Your task to perform on an android device: Clear all items from cart on target. Add "logitech g pro" to the cart on target Image 0: 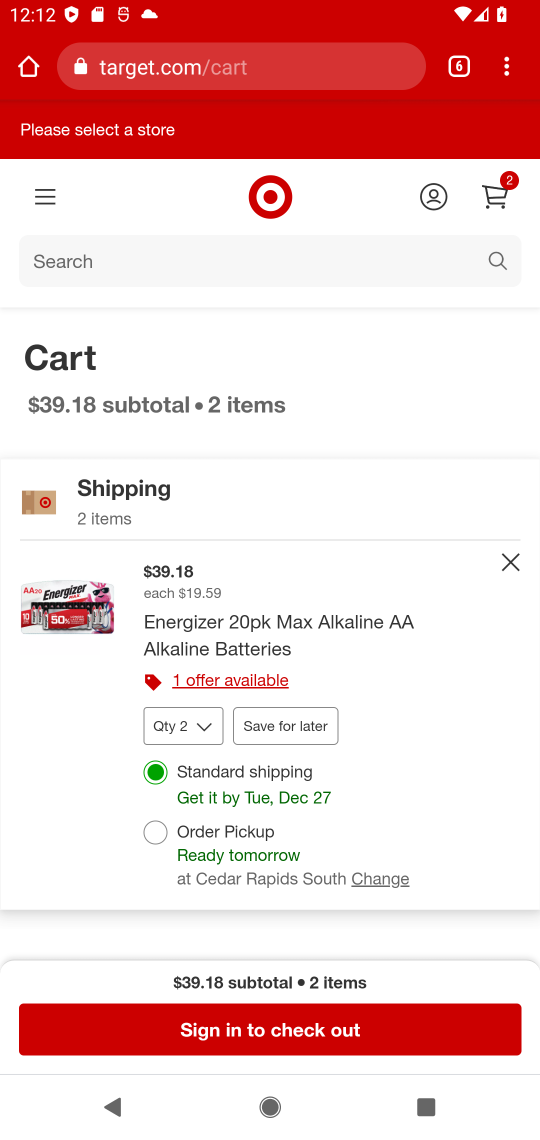
Step 0: press home button
Your task to perform on an android device: Clear all items from cart on target. Add "logitech g pro" to the cart on target Image 1: 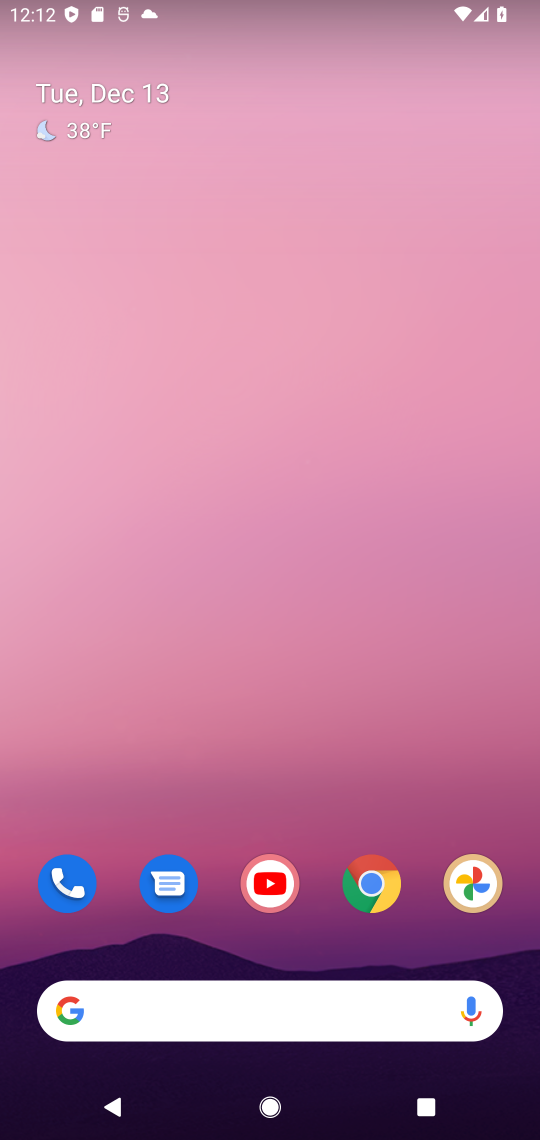
Step 1: drag from (289, 945) to (320, 276)
Your task to perform on an android device: Clear all items from cart on target. Add "logitech g pro" to the cart on target Image 2: 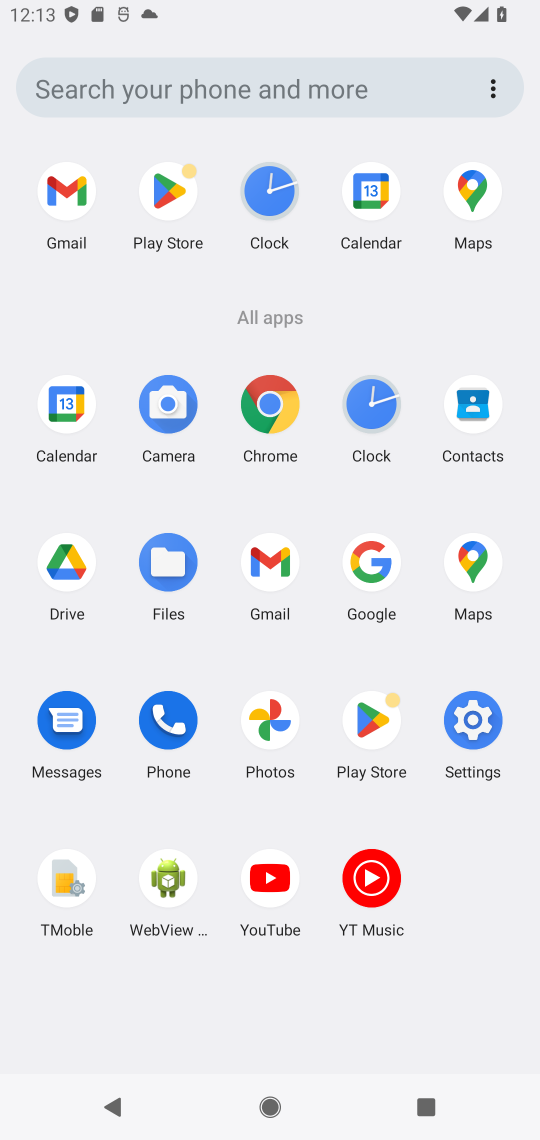
Step 2: click (369, 594)
Your task to perform on an android device: Clear all items from cart on target. Add "logitech g pro" to the cart on target Image 3: 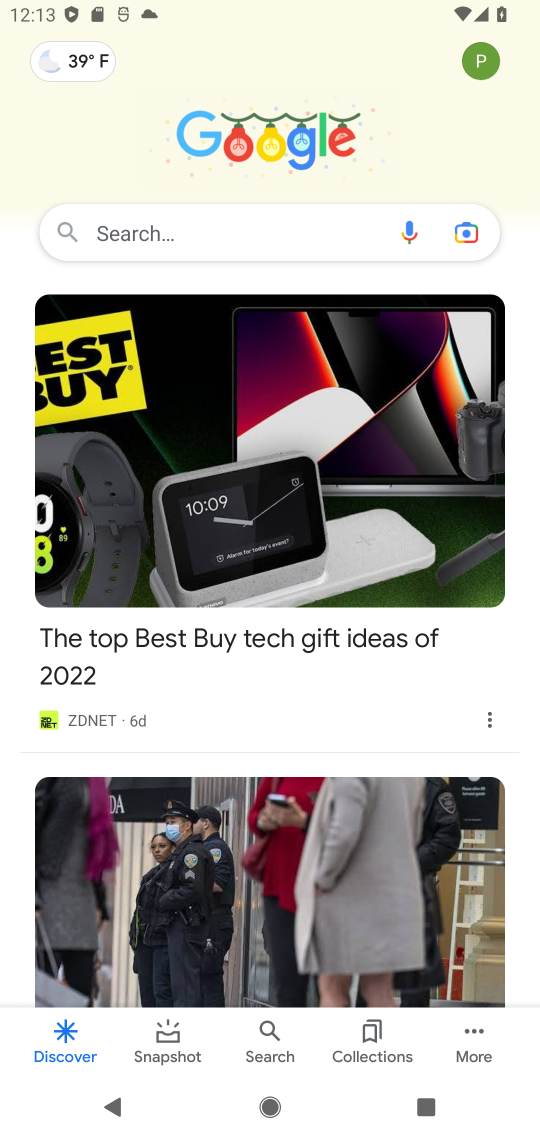
Step 3: click (187, 225)
Your task to perform on an android device: Clear all items from cart on target. Add "logitech g pro" to the cart on target Image 4: 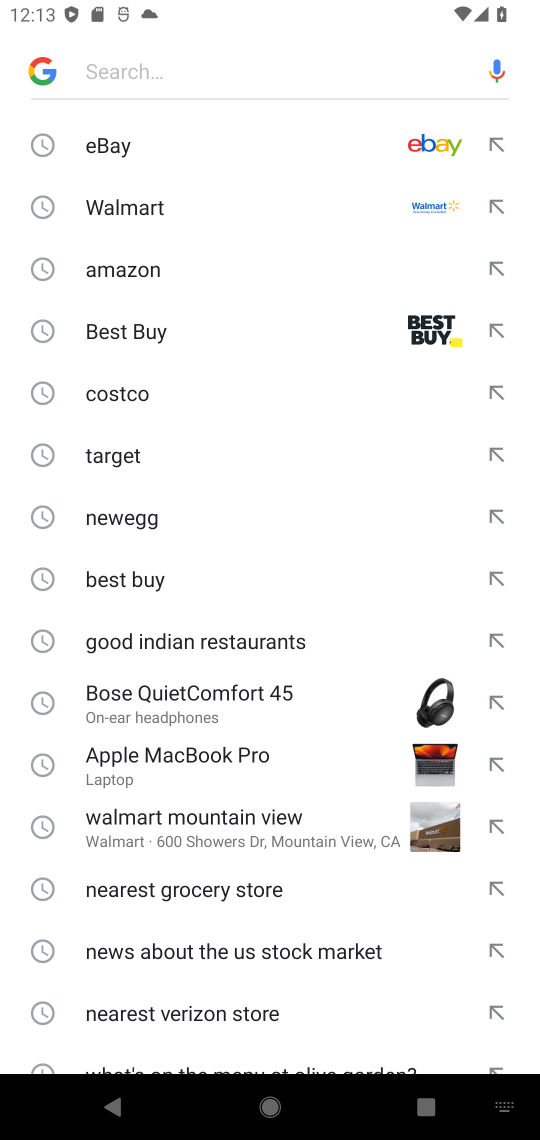
Step 4: click (128, 451)
Your task to perform on an android device: Clear all items from cart on target. Add "logitech g pro" to the cart on target Image 5: 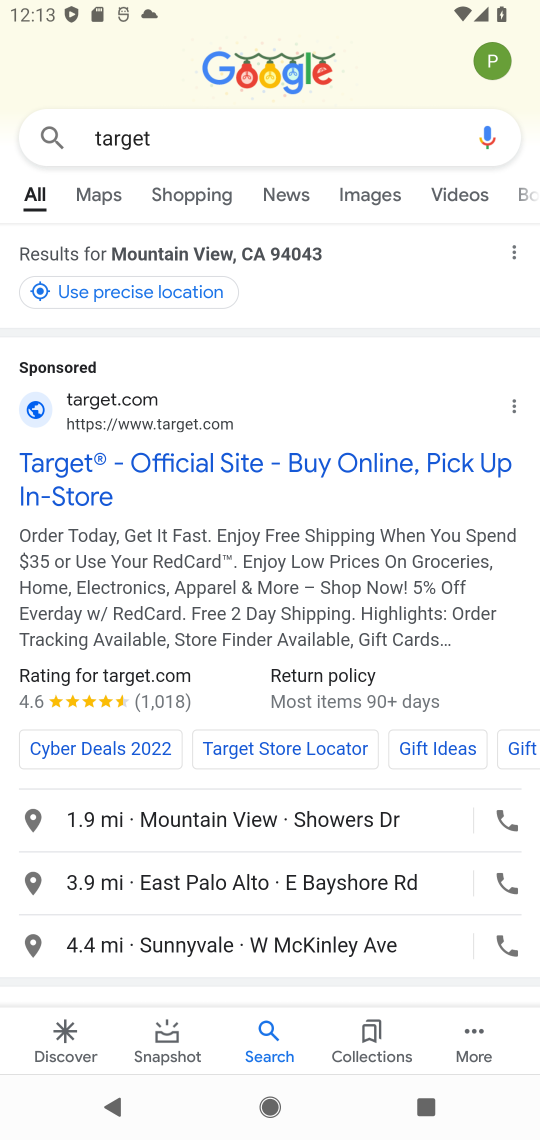
Step 5: drag from (171, 784) to (332, 373)
Your task to perform on an android device: Clear all items from cart on target. Add "logitech g pro" to the cart on target Image 6: 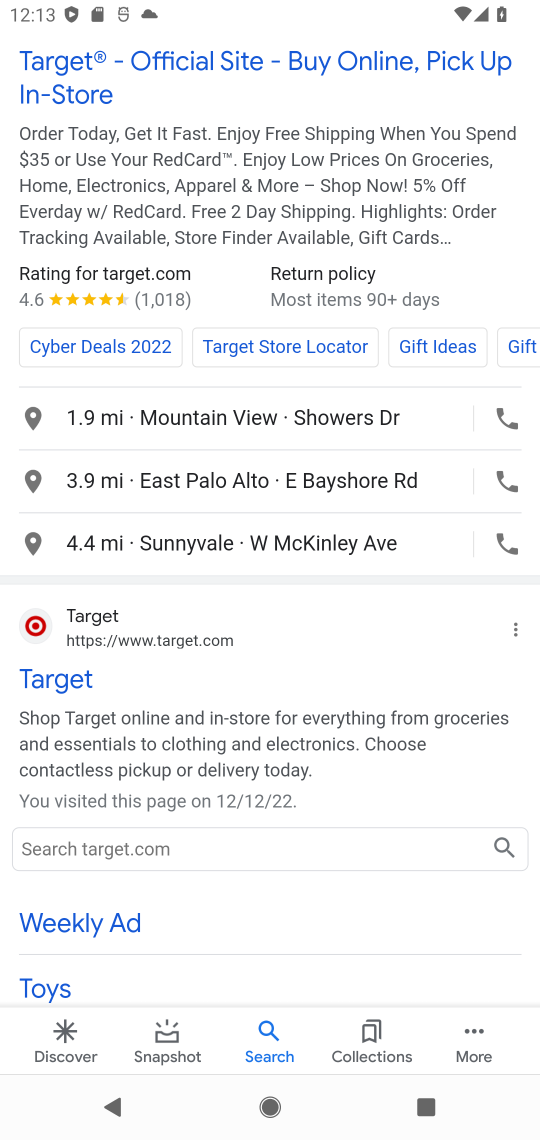
Step 6: click (77, 674)
Your task to perform on an android device: Clear all items from cart on target. Add "logitech g pro" to the cart on target Image 7: 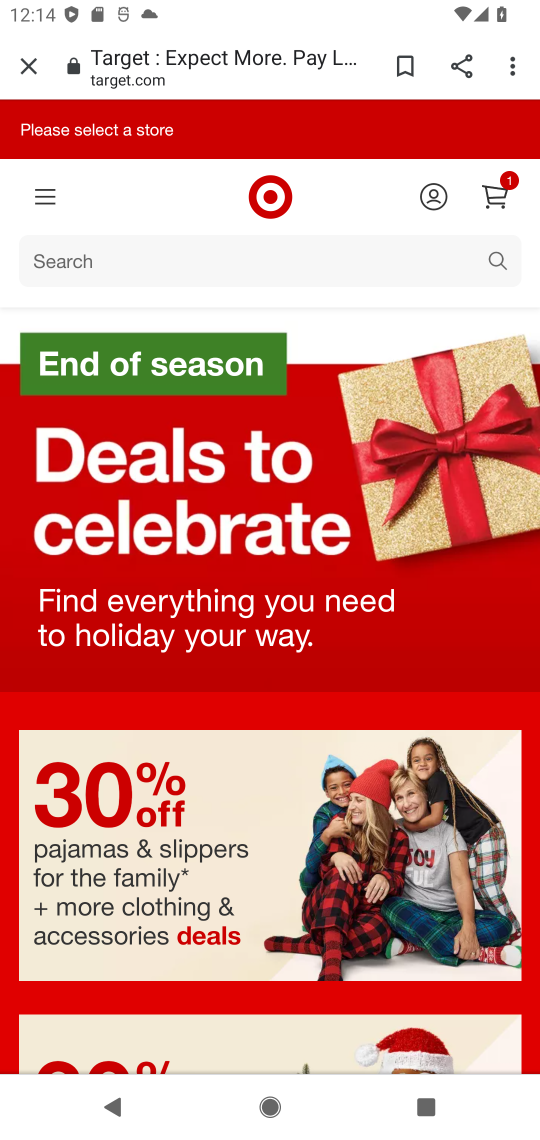
Step 7: click (265, 247)
Your task to perform on an android device: Clear all items from cart on target. Add "logitech g pro" to the cart on target Image 8: 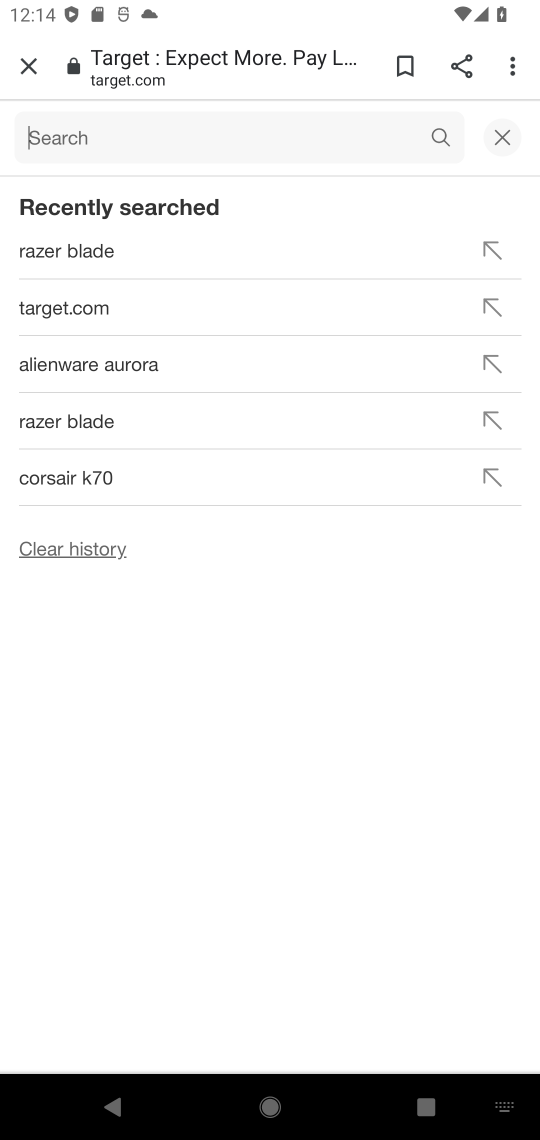
Step 8: type "logitech g pro"
Your task to perform on an android device: Clear all items from cart on target. Add "logitech g pro" to the cart on target Image 9: 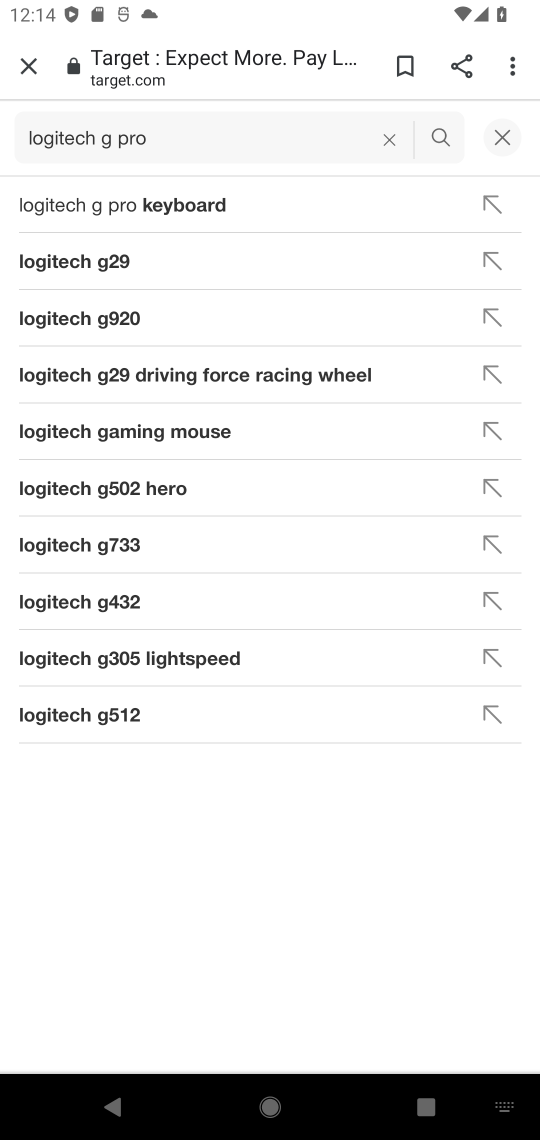
Step 9: click (432, 127)
Your task to perform on an android device: Clear all items from cart on target. Add "logitech g pro" to the cart on target Image 10: 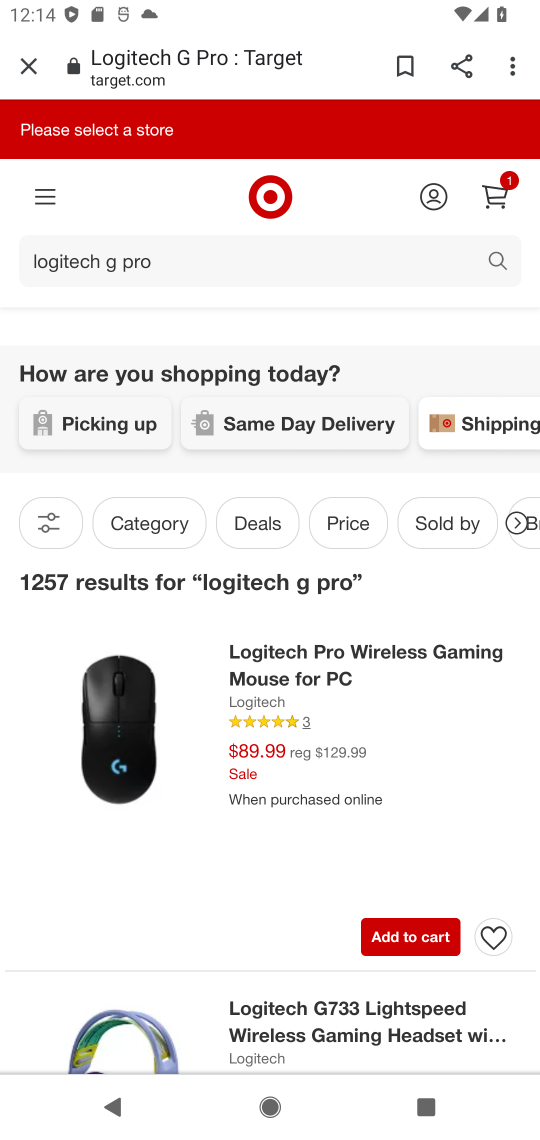
Step 10: click (391, 933)
Your task to perform on an android device: Clear all items from cart on target. Add "logitech g pro" to the cart on target Image 11: 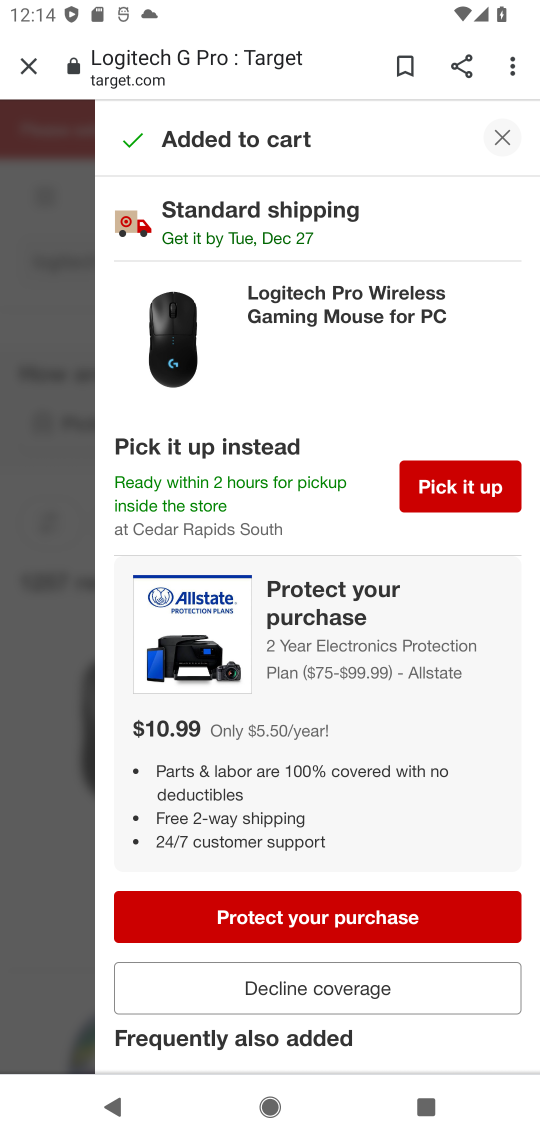
Step 11: task complete